Your task to perform on an android device: Open display settings Image 0: 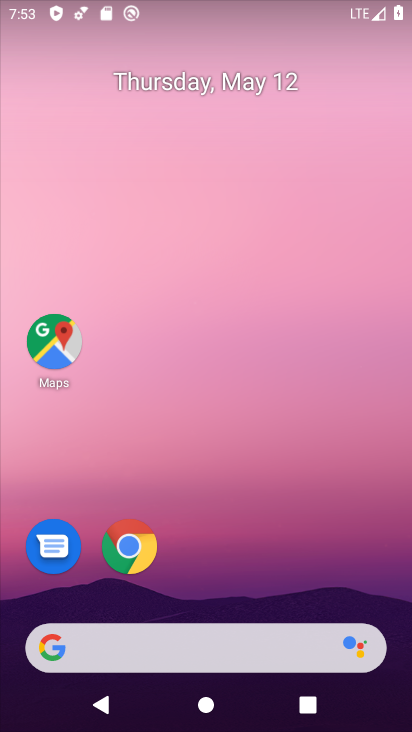
Step 0: drag from (195, 556) to (262, 2)
Your task to perform on an android device: Open display settings Image 1: 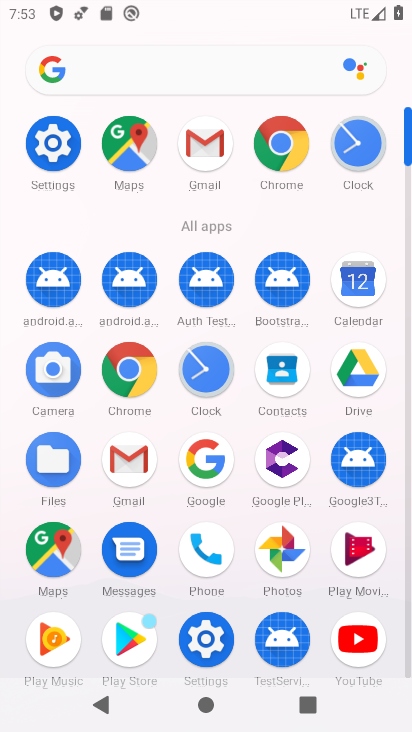
Step 1: click (56, 146)
Your task to perform on an android device: Open display settings Image 2: 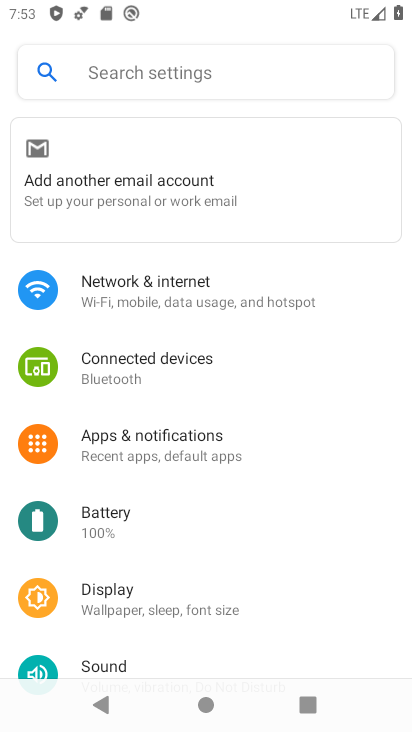
Step 2: click (142, 583)
Your task to perform on an android device: Open display settings Image 3: 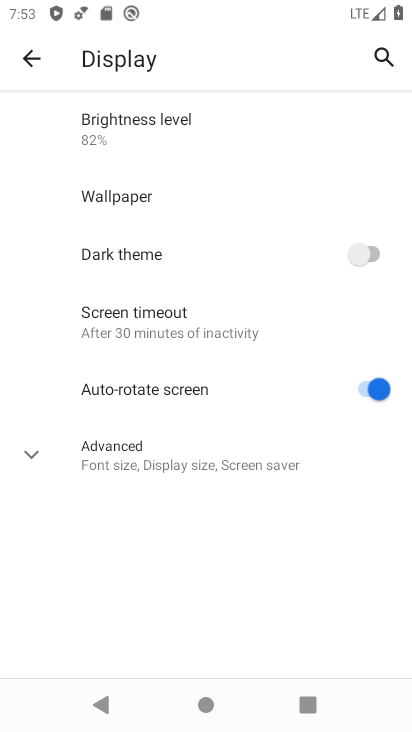
Step 3: task complete